Your task to perform on an android device: create a new album in the google photos Image 0: 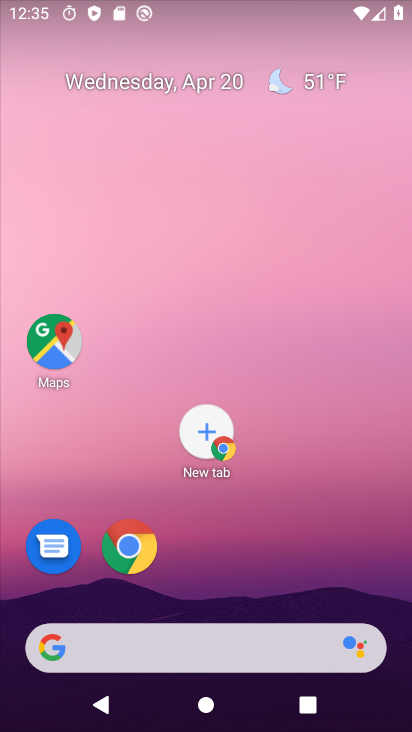
Step 0: click (128, 549)
Your task to perform on an android device: create a new album in the google photos Image 1: 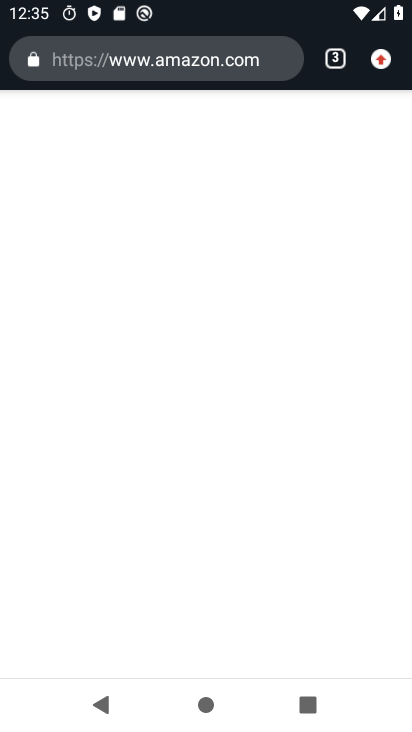
Step 1: press home button
Your task to perform on an android device: create a new album in the google photos Image 2: 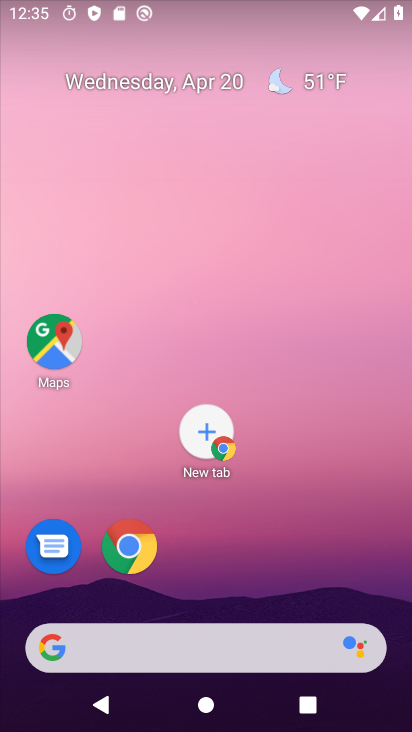
Step 2: drag from (252, 608) to (190, 107)
Your task to perform on an android device: create a new album in the google photos Image 3: 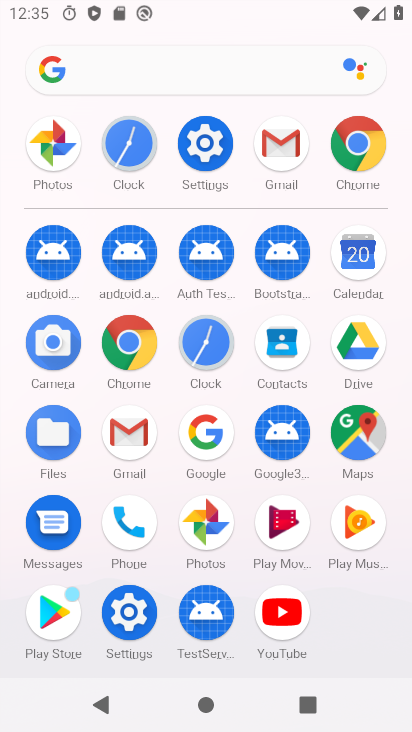
Step 3: click (54, 138)
Your task to perform on an android device: create a new album in the google photos Image 4: 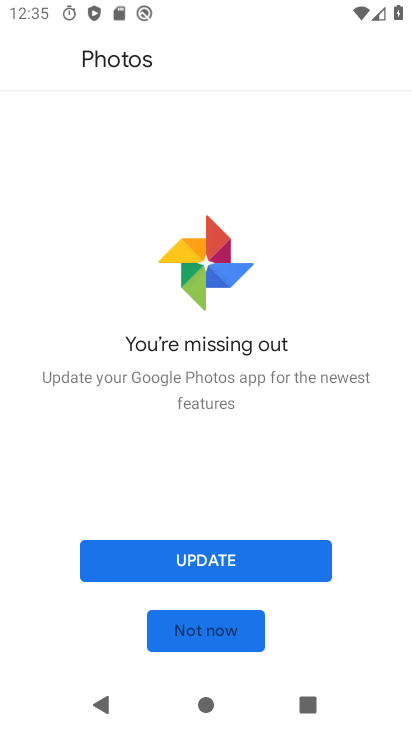
Step 4: click (218, 633)
Your task to perform on an android device: create a new album in the google photos Image 5: 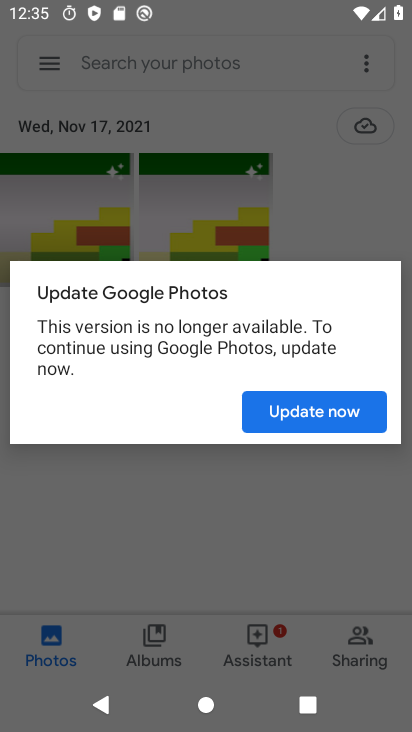
Step 5: click (312, 415)
Your task to perform on an android device: create a new album in the google photos Image 6: 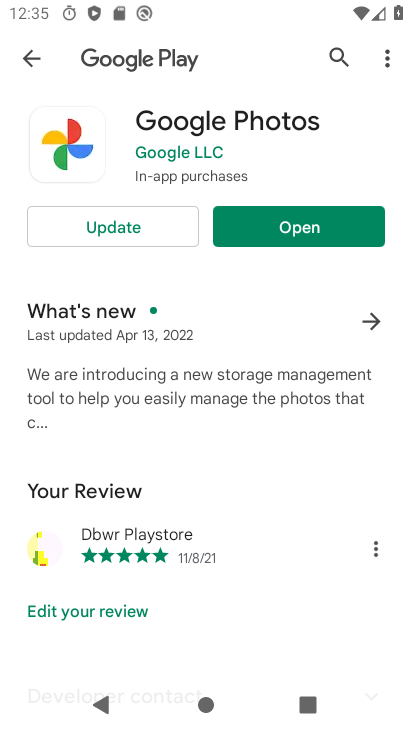
Step 6: click (139, 219)
Your task to perform on an android device: create a new album in the google photos Image 7: 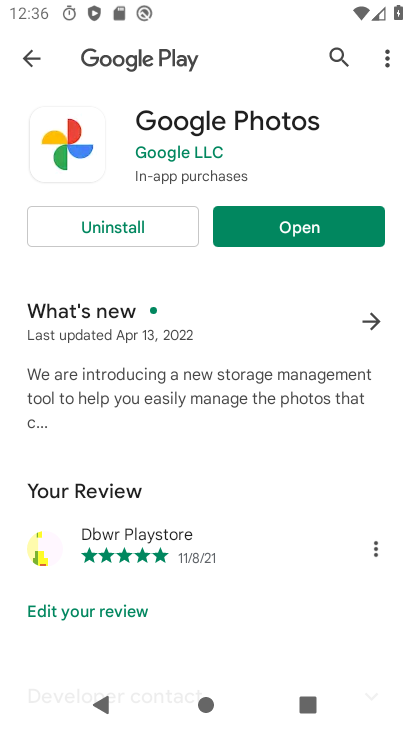
Step 7: click (271, 221)
Your task to perform on an android device: create a new album in the google photos Image 8: 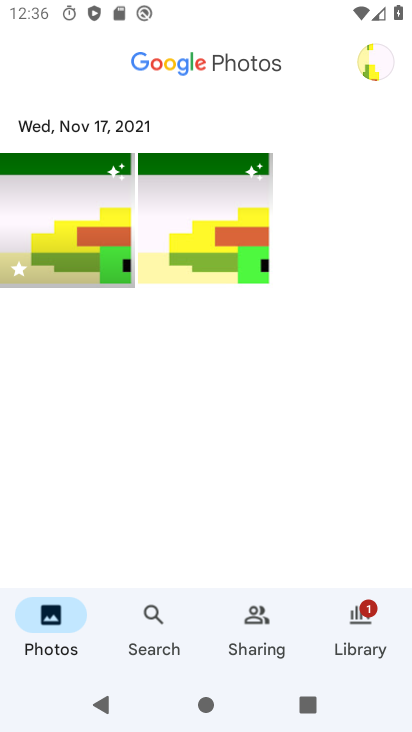
Step 8: click (100, 274)
Your task to perform on an android device: create a new album in the google photos Image 9: 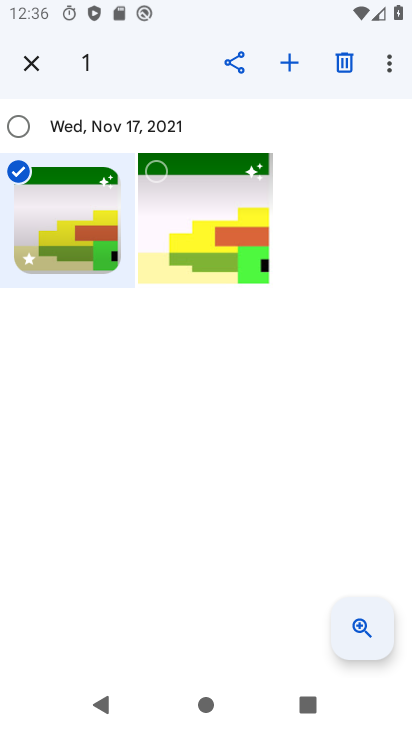
Step 9: click (158, 182)
Your task to perform on an android device: create a new album in the google photos Image 10: 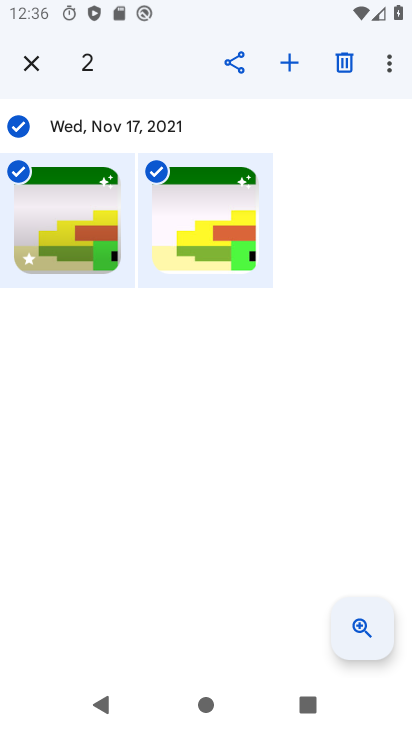
Step 10: click (292, 61)
Your task to perform on an android device: create a new album in the google photos Image 11: 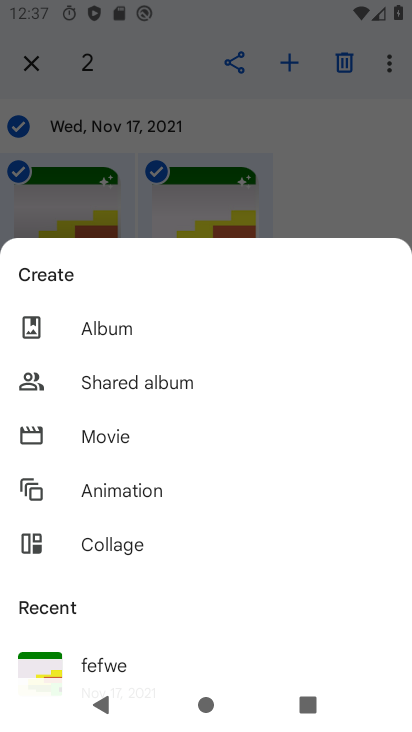
Step 11: click (99, 326)
Your task to perform on an android device: create a new album in the google photos Image 12: 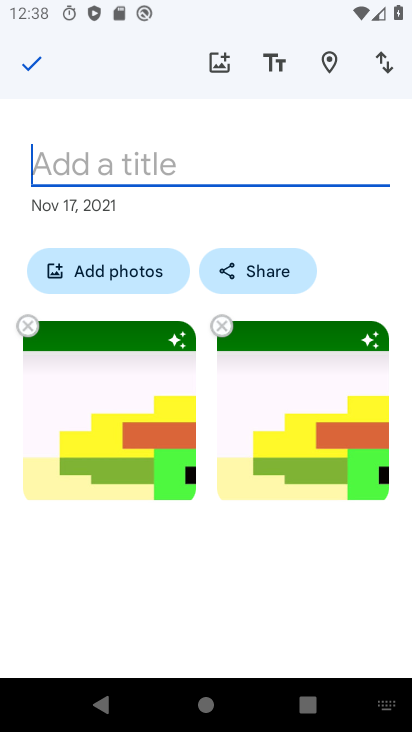
Step 12: type "pim"
Your task to perform on an android device: create a new album in the google photos Image 13: 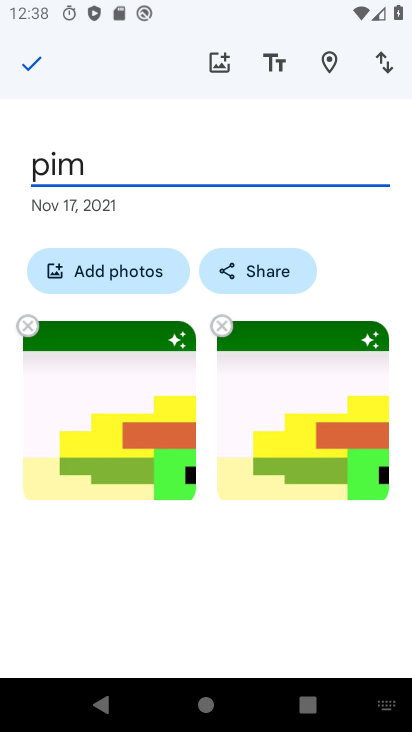
Step 13: click (38, 79)
Your task to perform on an android device: create a new album in the google photos Image 14: 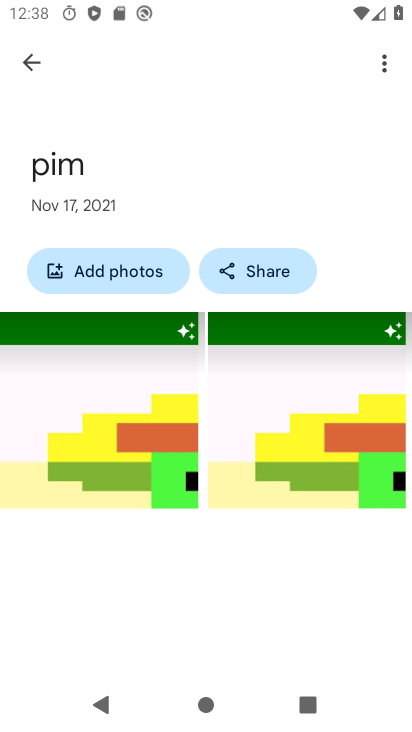
Step 14: task complete